Your task to perform on an android device: manage bookmarks in the chrome app Image 0: 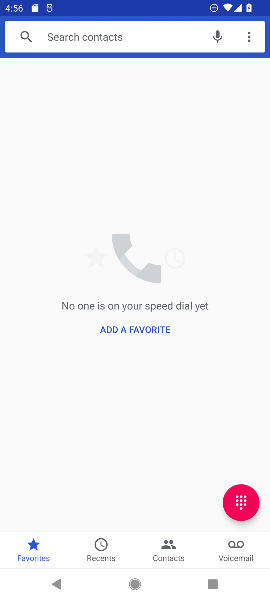
Step 0: press home button
Your task to perform on an android device: manage bookmarks in the chrome app Image 1: 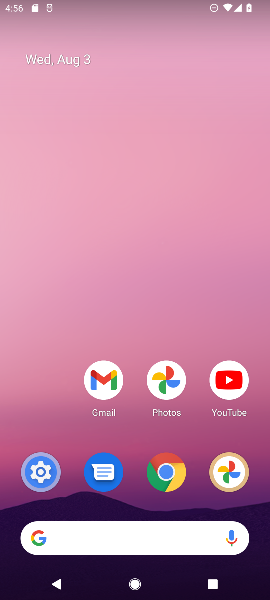
Step 1: drag from (217, 492) to (123, 54)
Your task to perform on an android device: manage bookmarks in the chrome app Image 2: 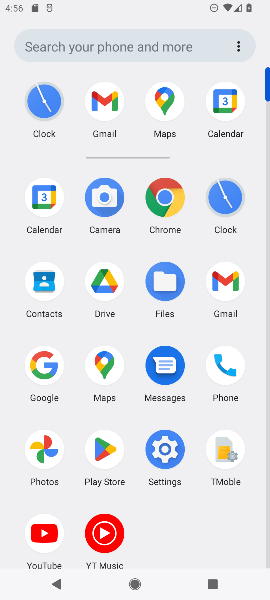
Step 2: click (155, 198)
Your task to perform on an android device: manage bookmarks in the chrome app Image 3: 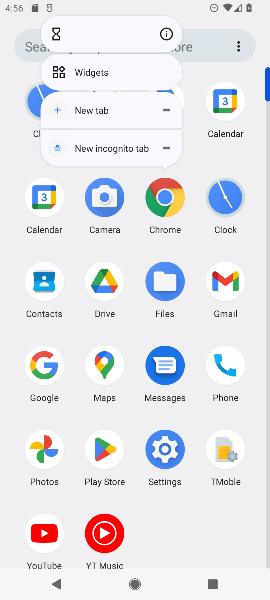
Step 3: click (156, 197)
Your task to perform on an android device: manage bookmarks in the chrome app Image 4: 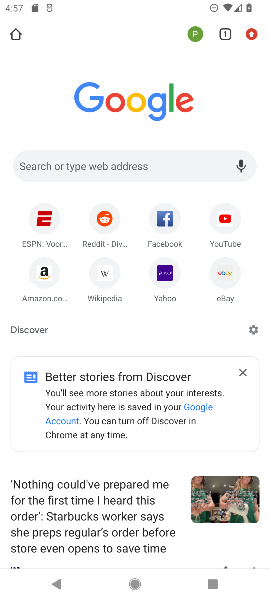
Step 4: task complete